Your task to perform on an android device: see sites visited before in the chrome app Image 0: 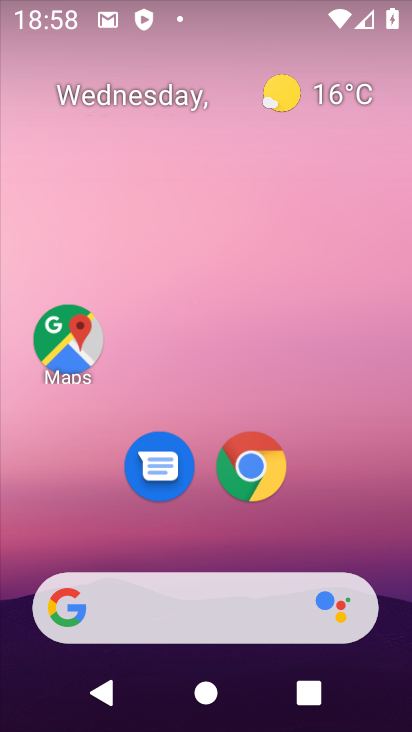
Step 0: click (255, 475)
Your task to perform on an android device: see sites visited before in the chrome app Image 1: 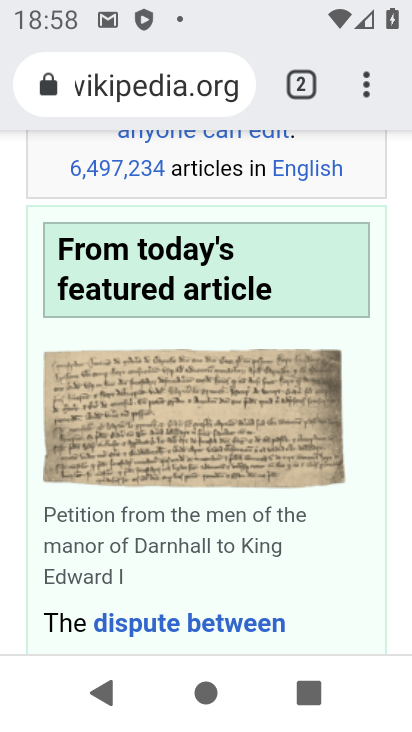
Step 1: click (365, 82)
Your task to perform on an android device: see sites visited before in the chrome app Image 2: 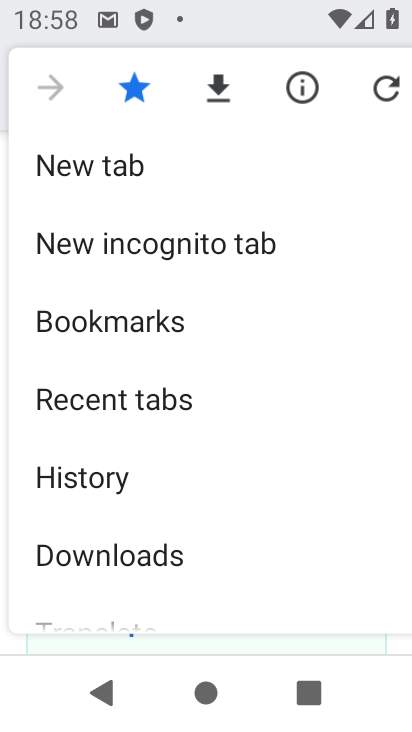
Step 2: click (96, 484)
Your task to perform on an android device: see sites visited before in the chrome app Image 3: 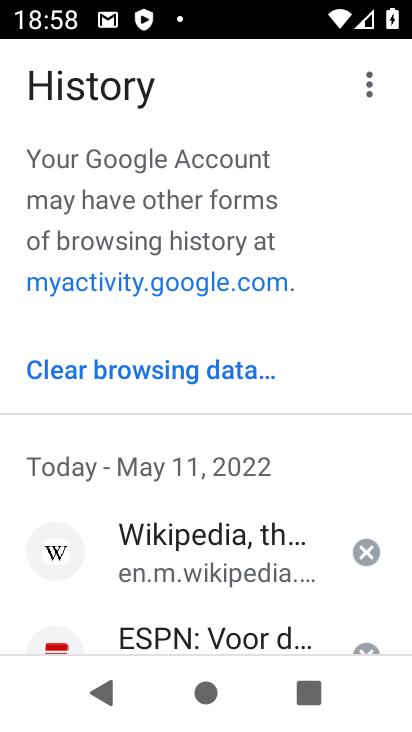
Step 3: task complete